Your task to perform on an android device: Open wifi settings Image 0: 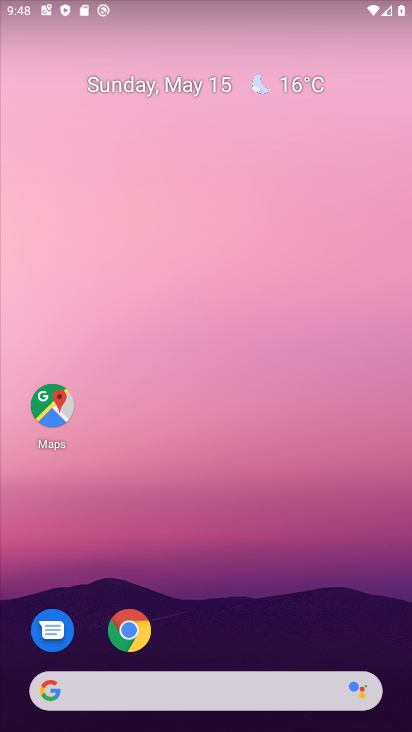
Step 0: drag from (207, 615) to (207, 126)
Your task to perform on an android device: Open wifi settings Image 1: 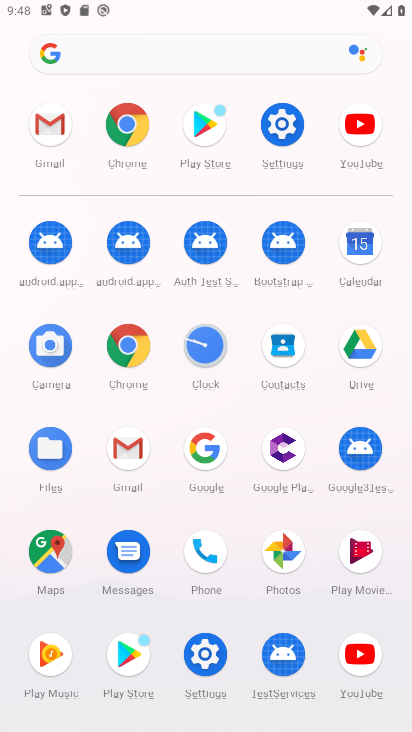
Step 1: click (276, 126)
Your task to perform on an android device: Open wifi settings Image 2: 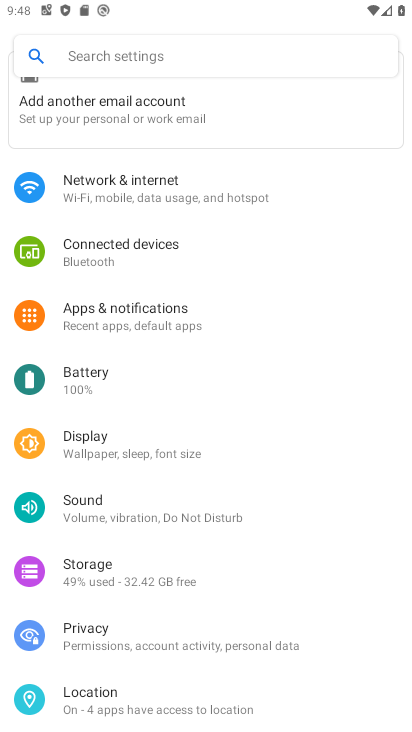
Step 2: click (167, 185)
Your task to perform on an android device: Open wifi settings Image 3: 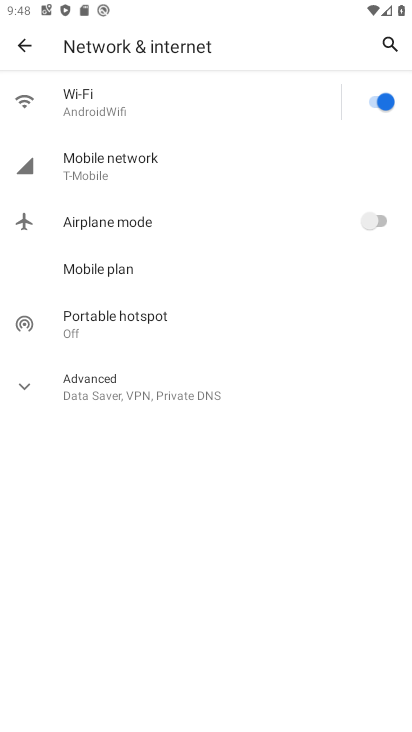
Step 3: click (128, 109)
Your task to perform on an android device: Open wifi settings Image 4: 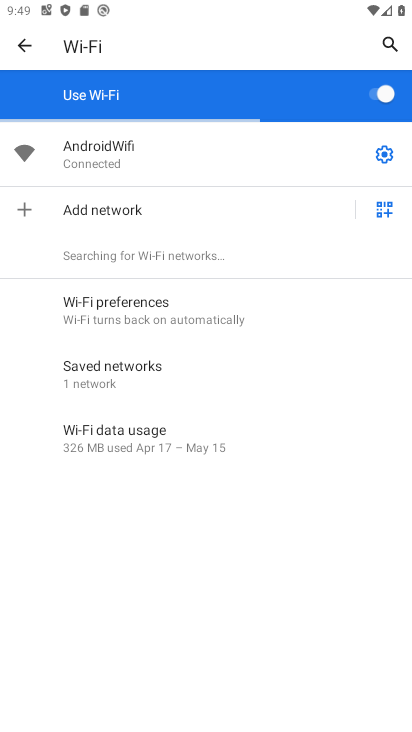
Step 4: task complete